Your task to perform on an android device: turn notification dots on Image 0: 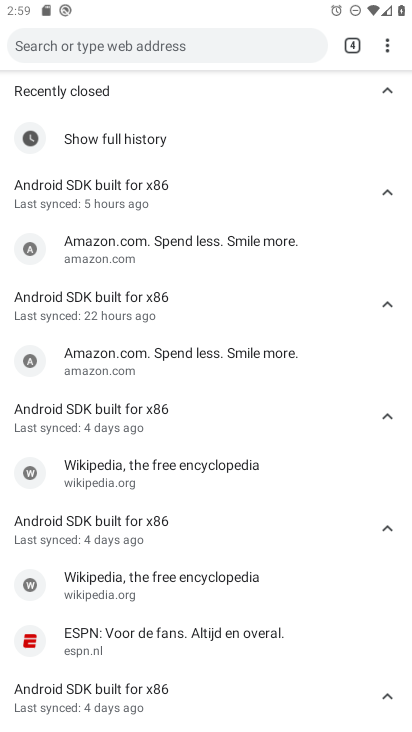
Step 0: press home button
Your task to perform on an android device: turn notification dots on Image 1: 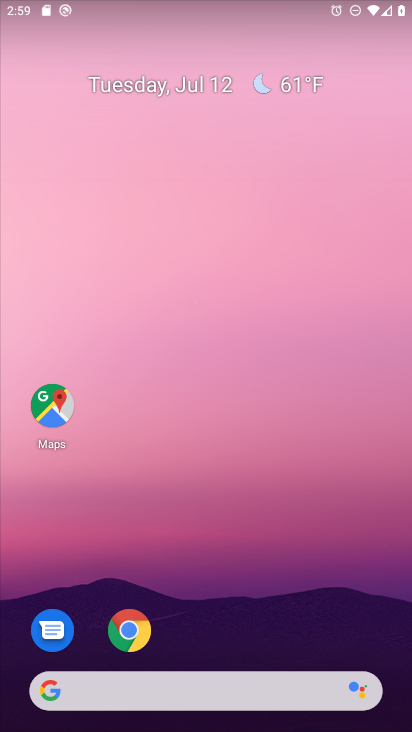
Step 1: drag from (209, 635) to (266, 185)
Your task to perform on an android device: turn notification dots on Image 2: 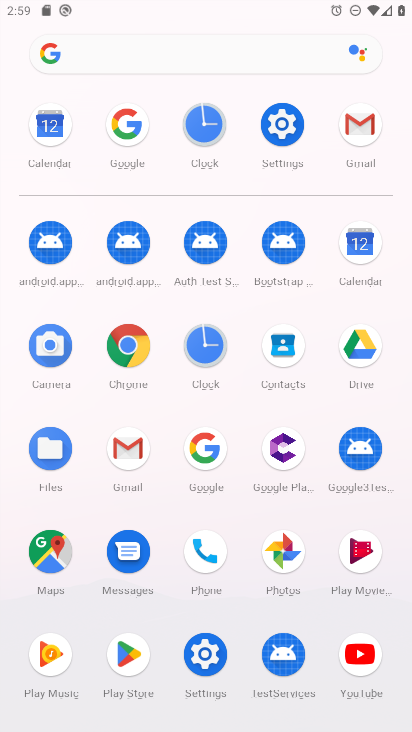
Step 2: click (285, 138)
Your task to perform on an android device: turn notification dots on Image 3: 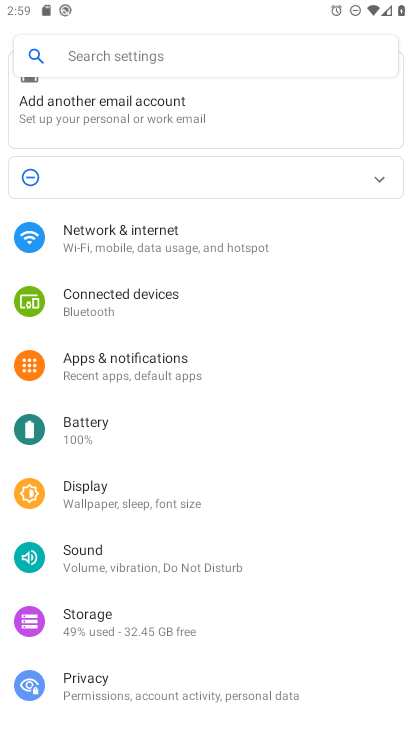
Step 3: click (163, 380)
Your task to perform on an android device: turn notification dots on Image 4: 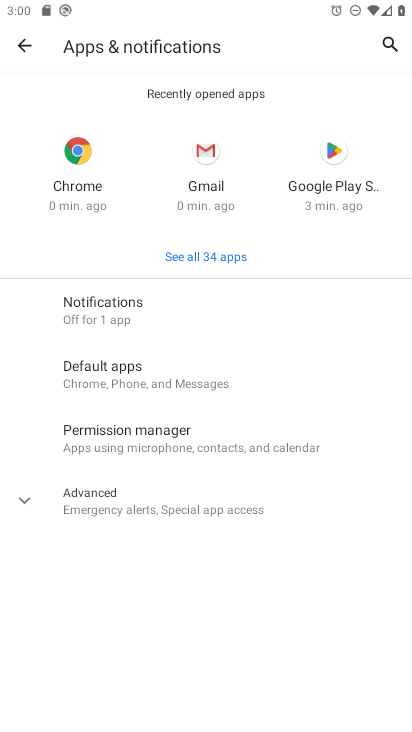
Step 4: click (125, 308)
Your task to perform on an android device: turn notification dots on Image 5: 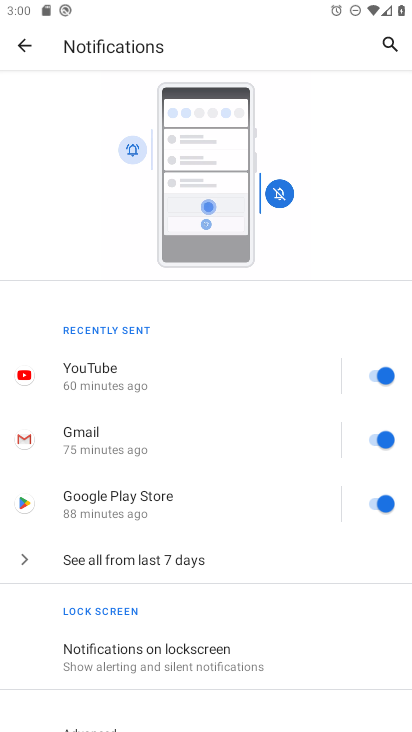
Step 5: drag from (209, 619) to (247, 348)
Your task to perform on an android device: turn notification dots on Image 6: 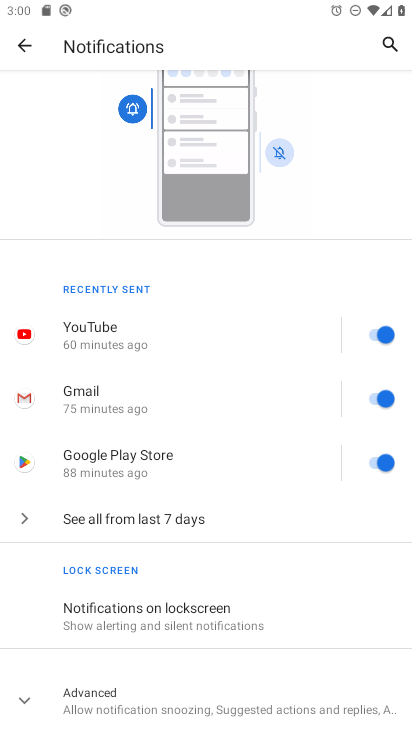
Step 6: click (153, 692)
Your task to perform on an android device: turn notification dots on Image 7: 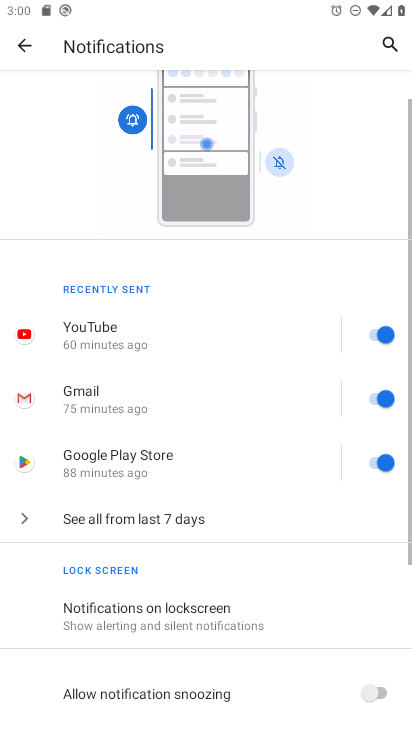
Step 7: task complete